Your task to perform on an android device: open a new tab in the chrome app Image 0: 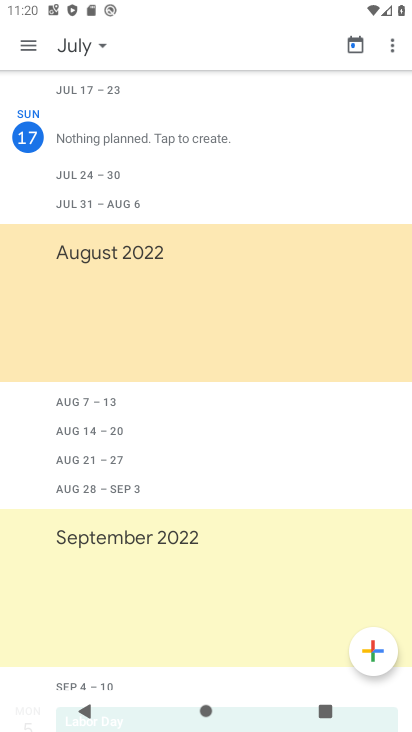
Step 0: press home button
Your task to perform on an android device: open a new tab in the chrome app Image 1: 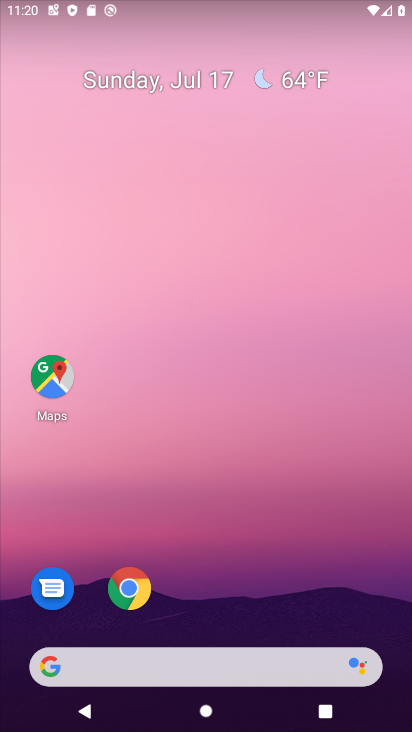
Step 1: click (133, 601)
Your task to perform on an android device: open a new tab in the chrome app Image 2: 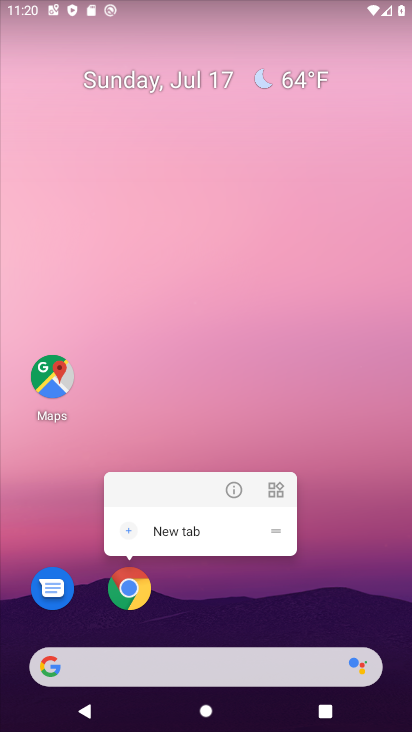
Step 2: click (134, 604)
Your task to perform on an android device: open a new tab in the chrome app Image 3: 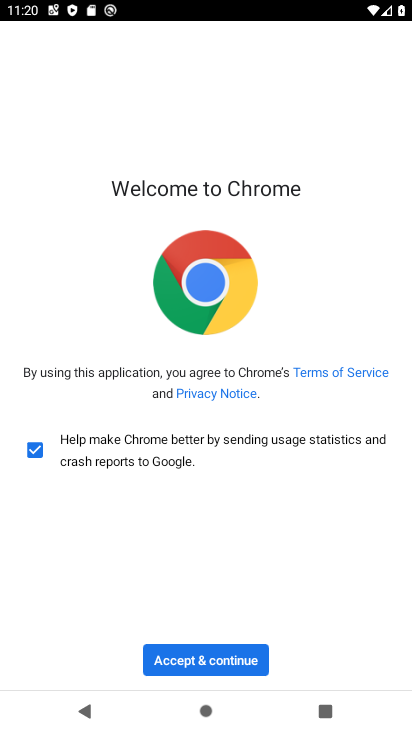
Step 3: click (201, 660)
Your task to perform on an android device: open a new tab in the chrome app Image 4: 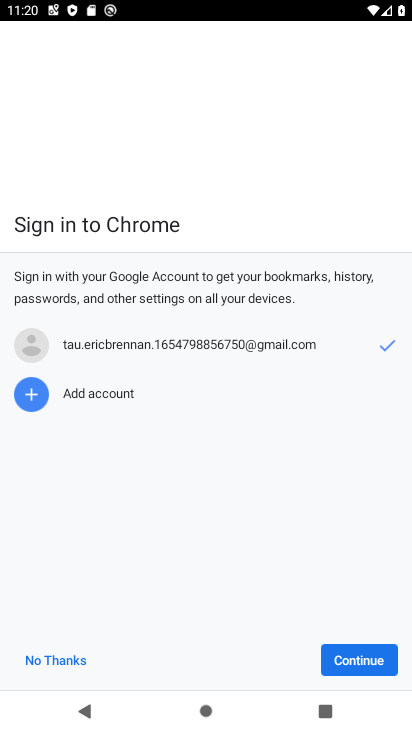
Step 4: click (357, 666)
Your task to perform on an android device: open a new tab in the chrome app Image 5: 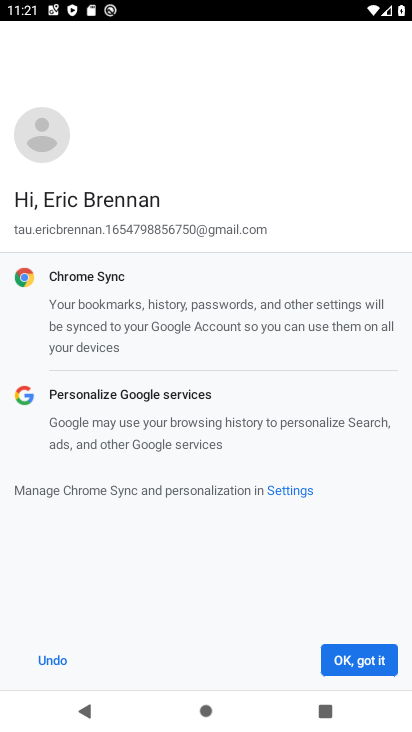
Step 5: click (361, 661)
Your task to perform on an android device: open a new tab in the chrome app Image 6: 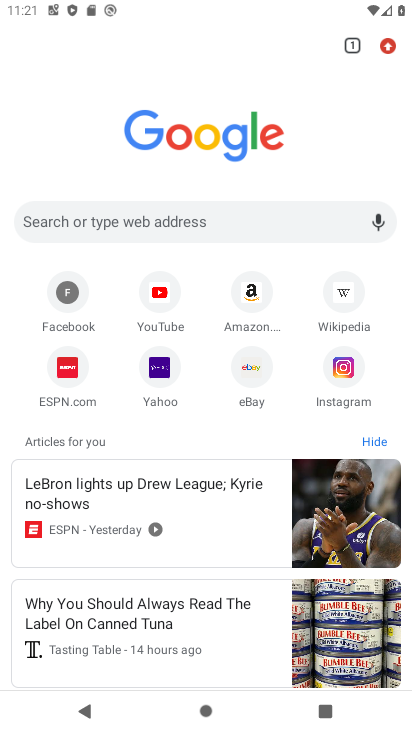
Step 6: task complete